Your task to perform on an android device: Open Google Chrome Image 0: 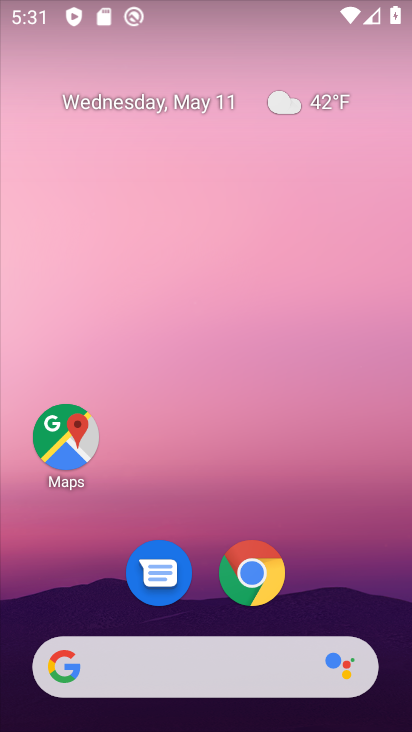
Step 0: click (257, 576)
Your task to perform on an android device: Open Google Chrome Image 1: 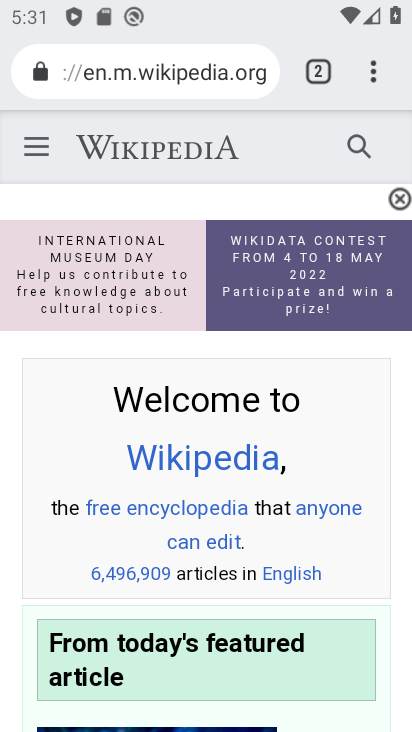
Step 1: task complete